Your task to perform on an android device: Play the last video I watched on Youtube Image 0: 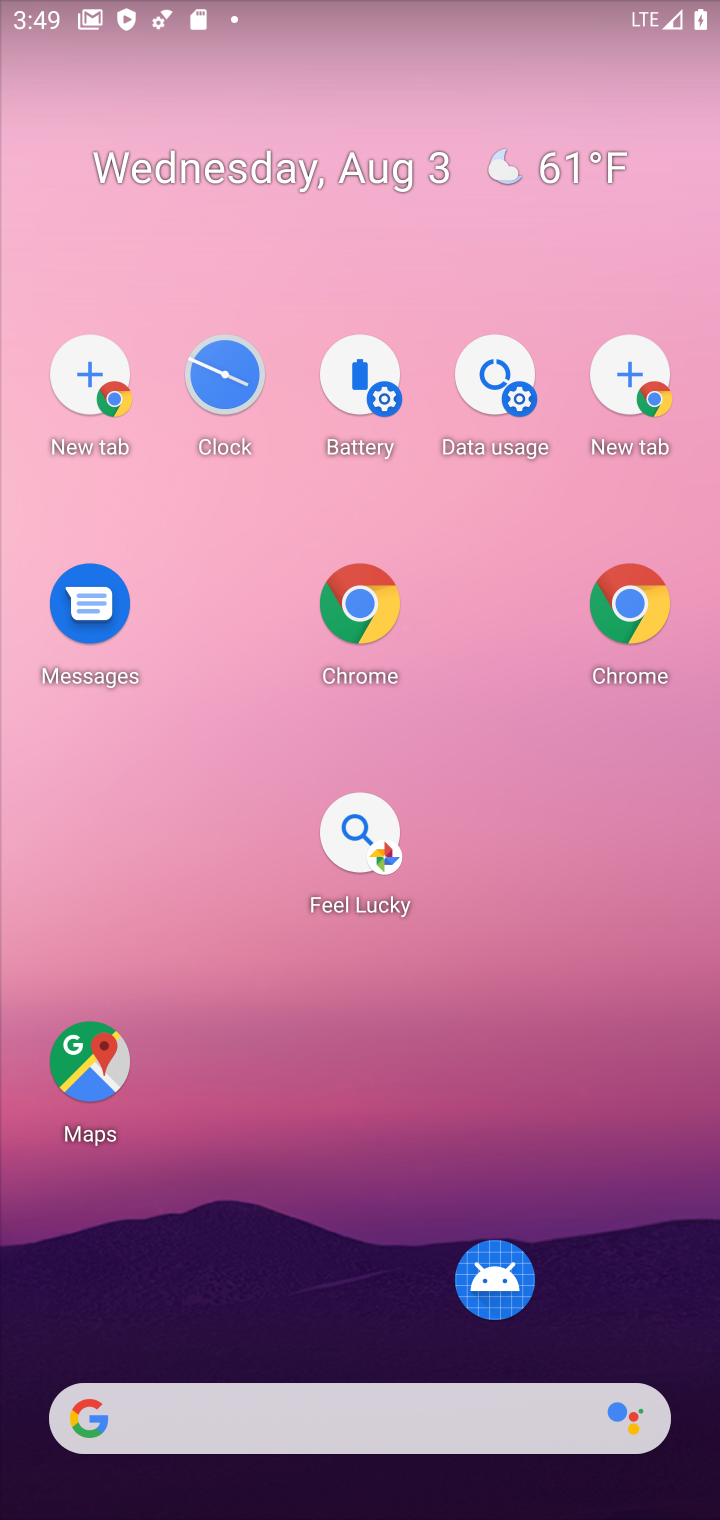
Step 0: press back button
Your task to perform on an android device: Play the last video I watched on Youtube Image 1: 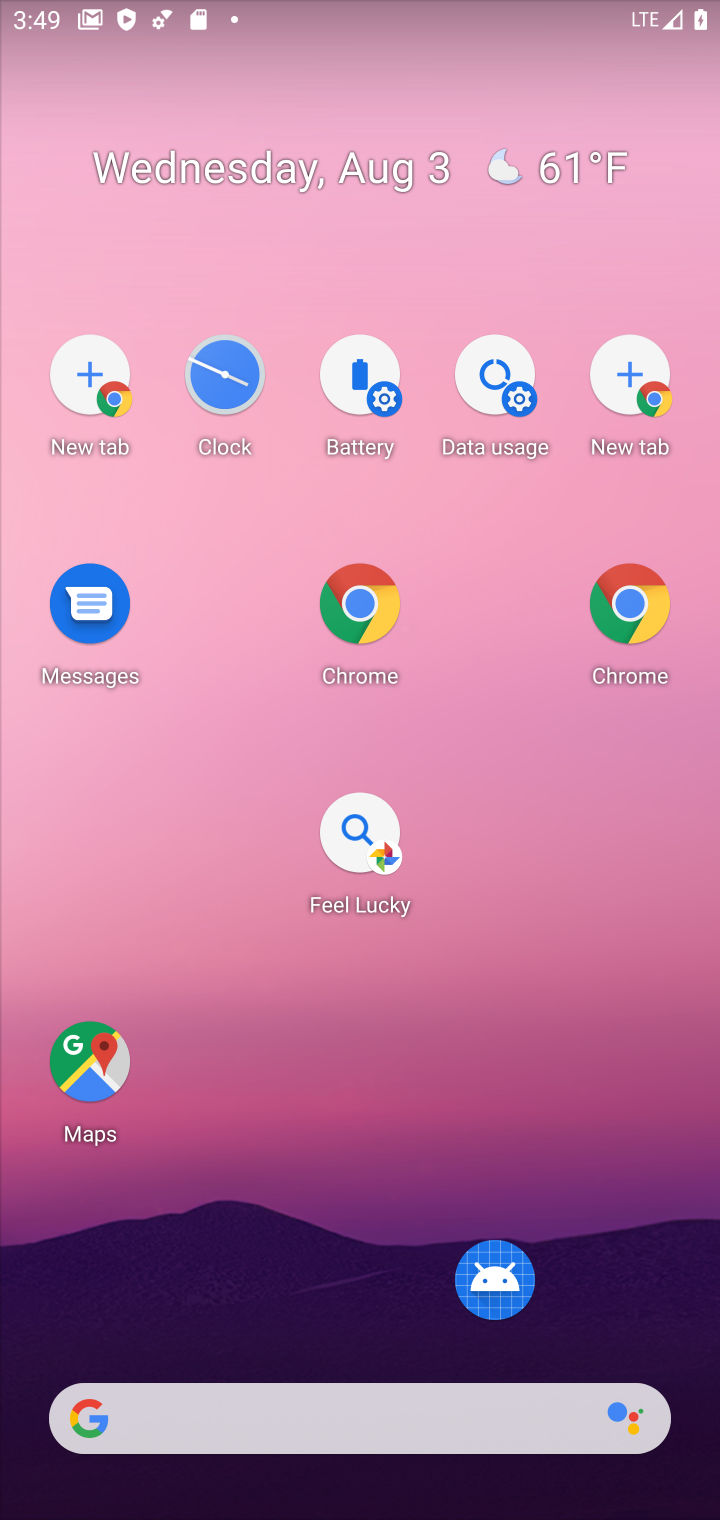
Step 1: drag from (430, 1176) to (324, 323)
Your task to perform on an android device: Play the last video I watched on Youtube Image 2: 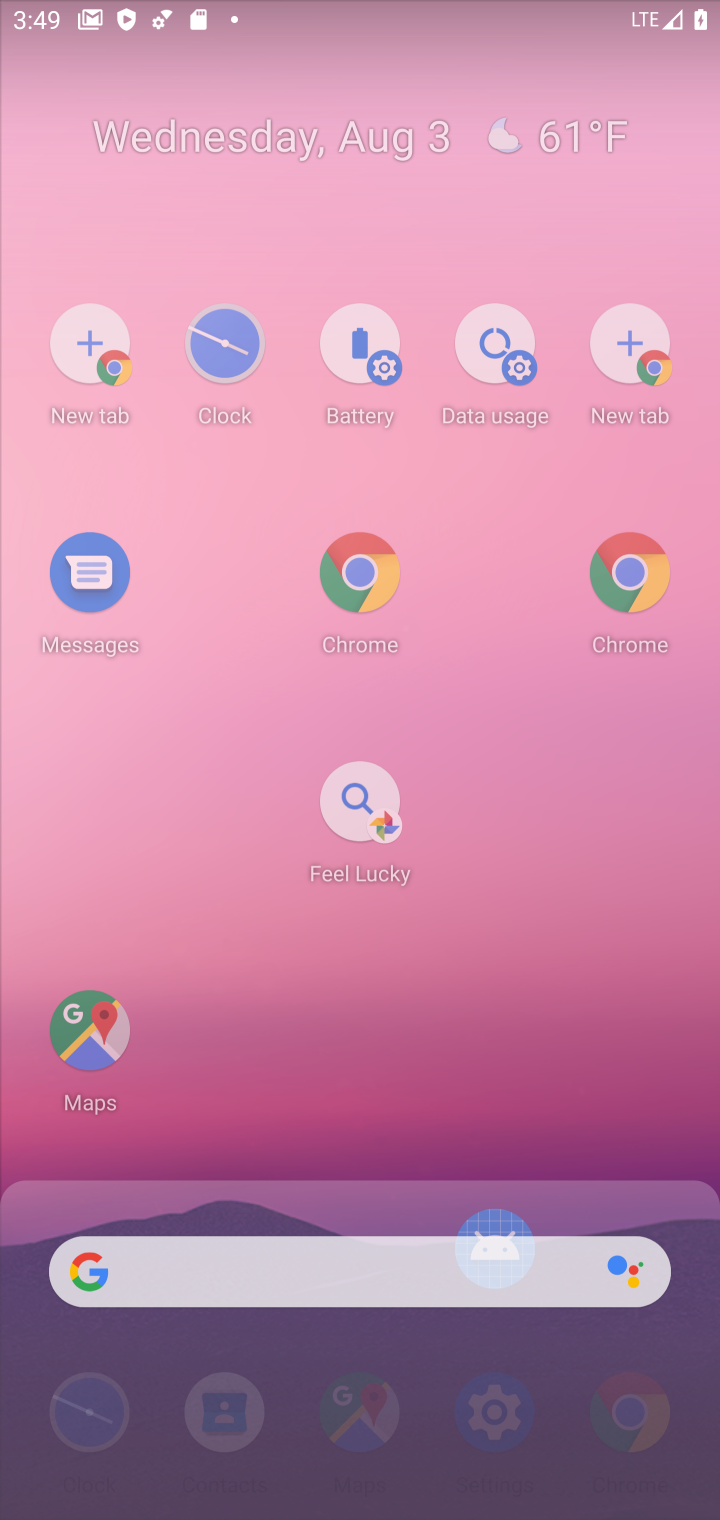
Step 2: drag from (523, 1110) to (470, 638)
Your task to perform on an android device: Play the last video I watched on Youtube Image 3: 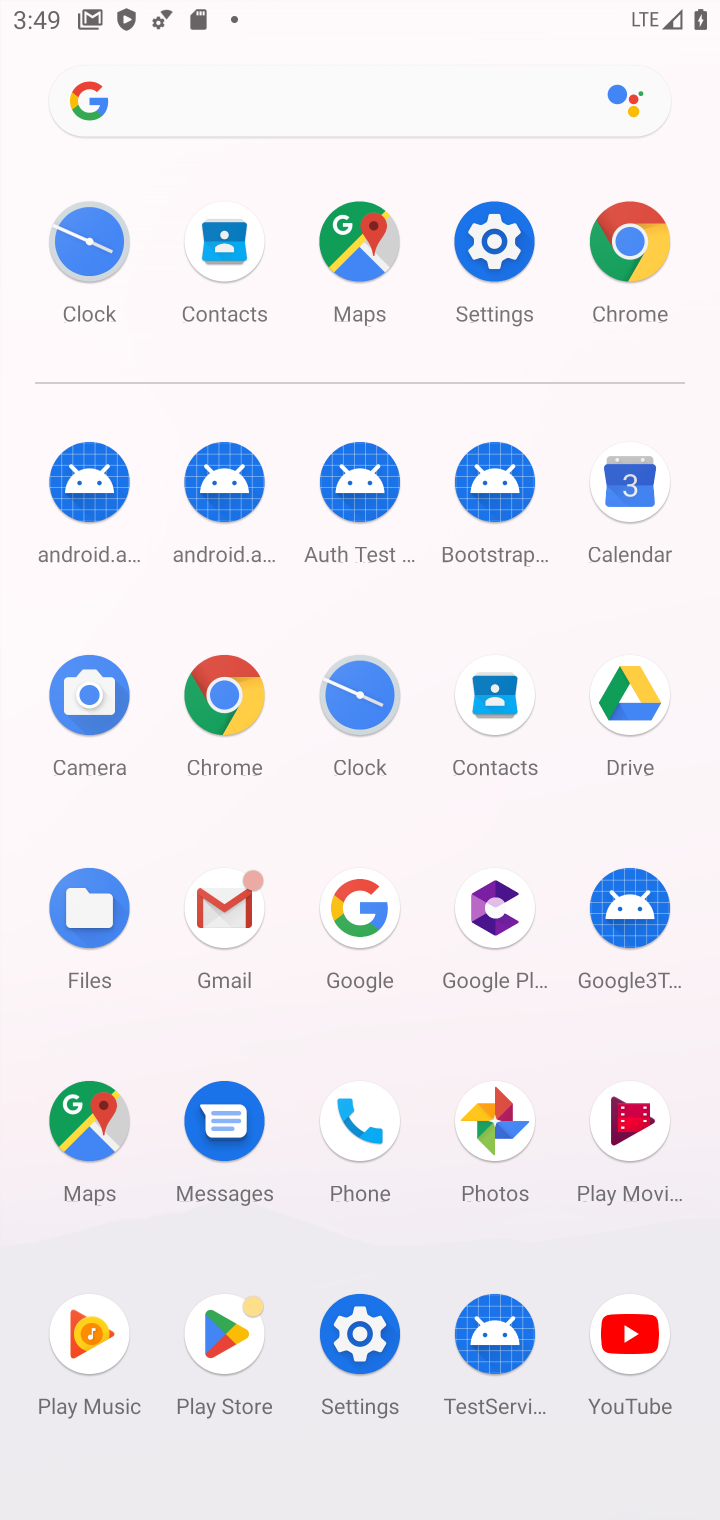
Step 3: click (639, 1325)
Your task to perform on an android device: Play the last video I watched on Youtube Image 4: 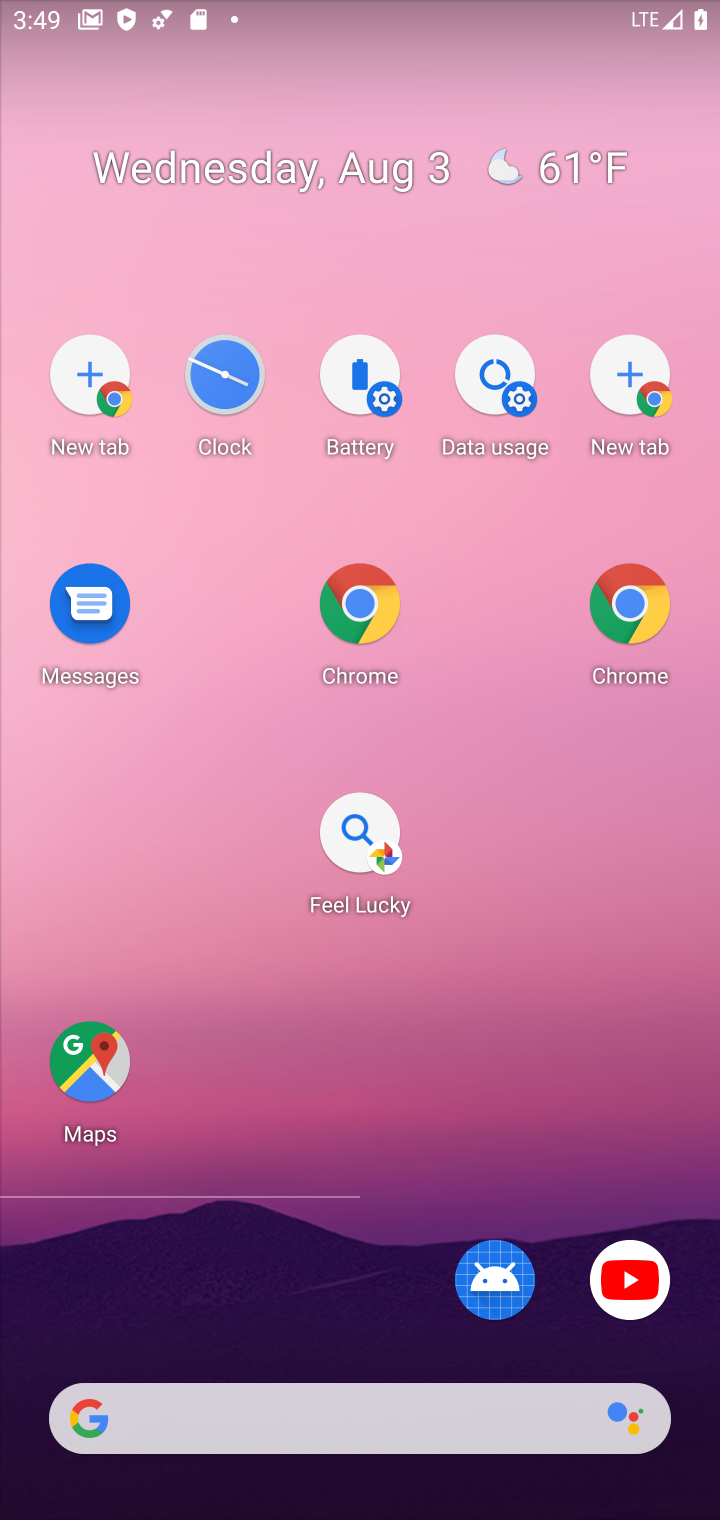
Step 4: click (625, 1265)
Your task to perform on an android device: Play the last video I watched on Youtube Image 5: 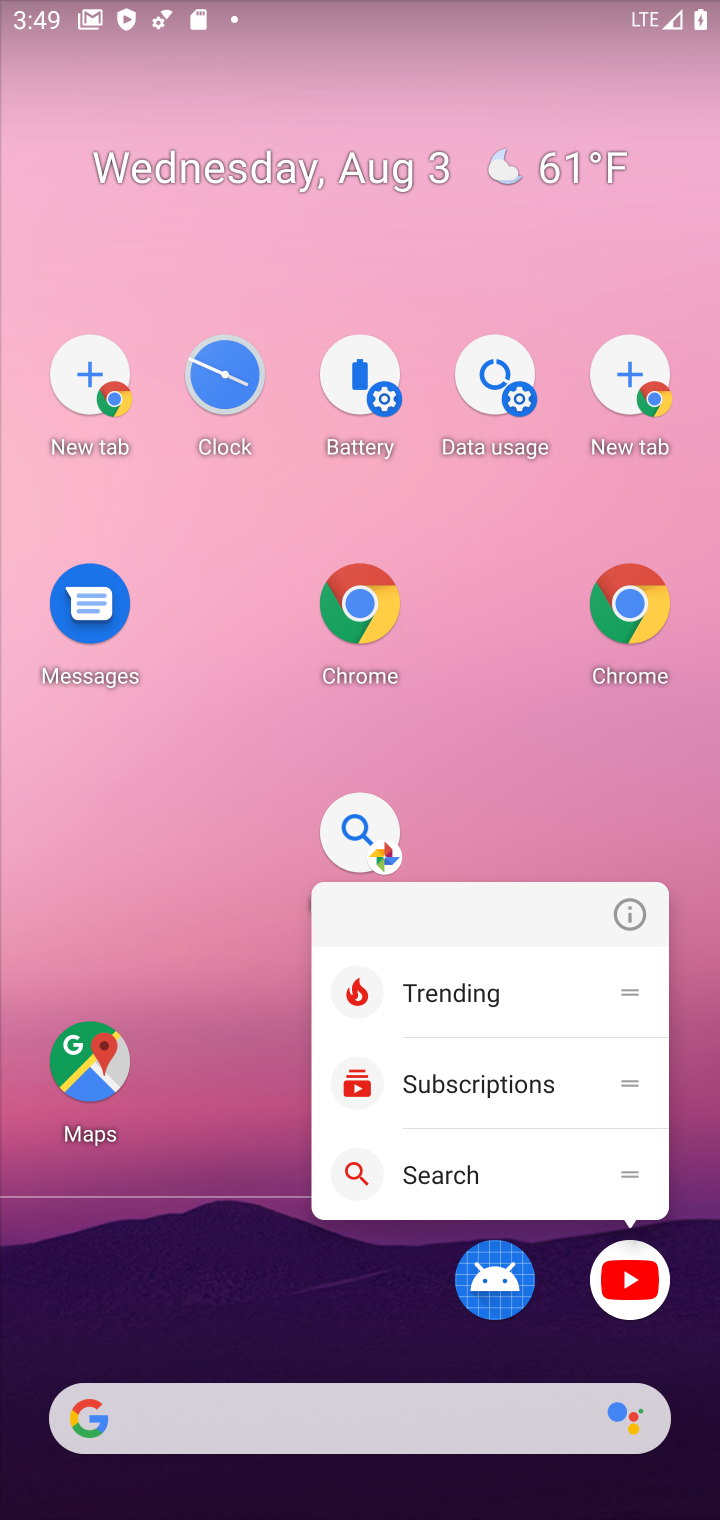
Step 5: click (623, 1263)
Your task to perform on an android device: Play the last video I watched on Youtube Image 6: 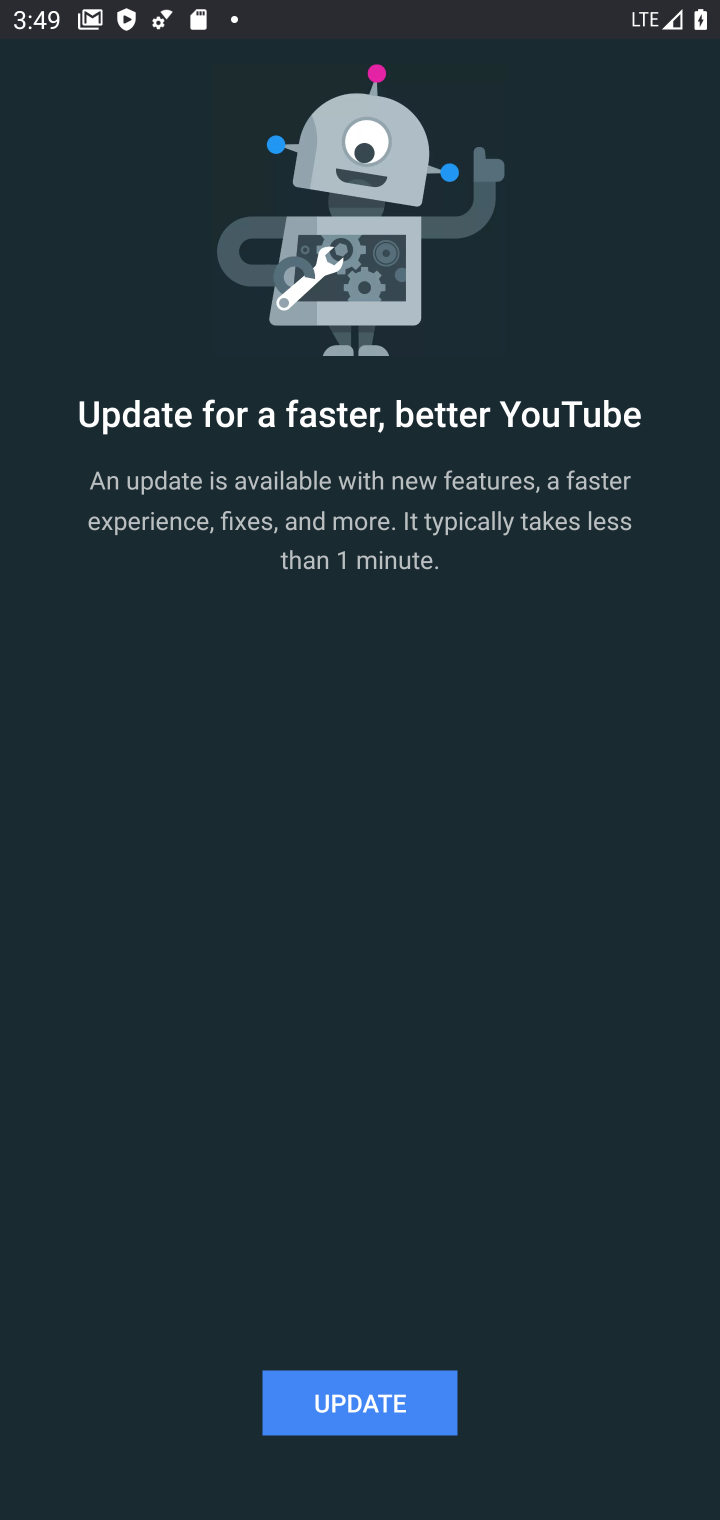
Step 6: click (376, 1402)
Your task to perform on an android device: Play the last video I watched on Youtube Image 7: 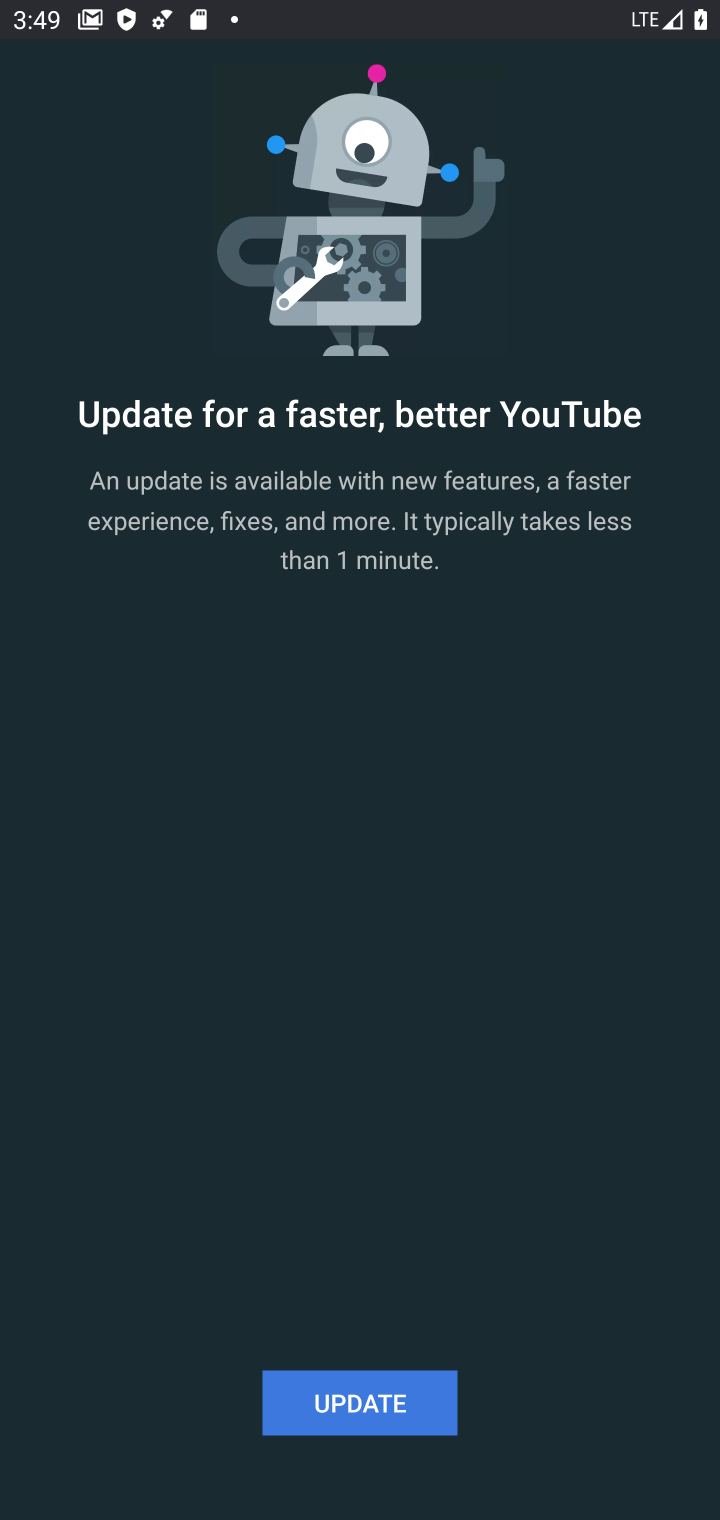
Step 7: click (376, 1402)
Your task to perform on an android device: Play the last video I watched on Youtube Image 8: 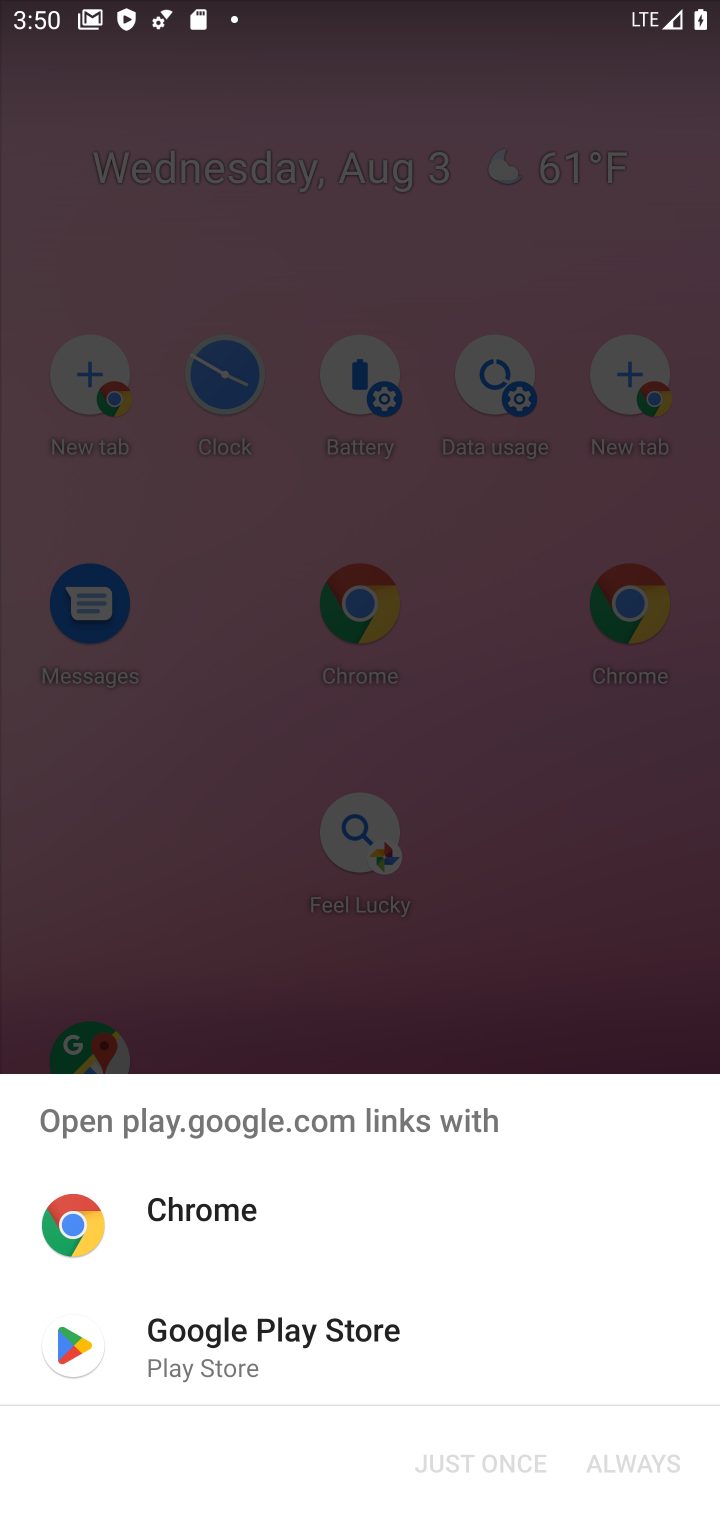
Step 8: click (157, 1202)
Your task to perform on an android device: Play the last video I watched on Youtube Image 9: 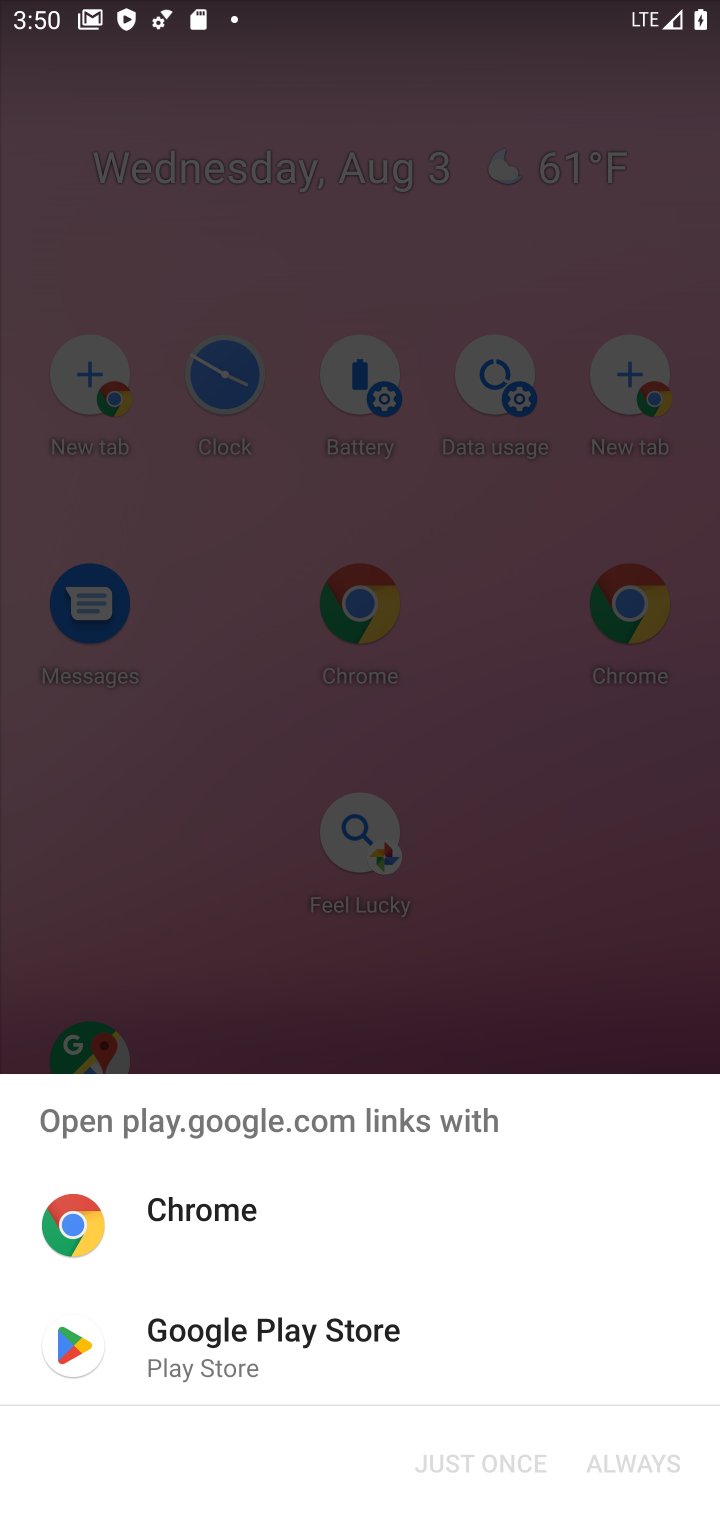
Step 9: click (157, 1202)
Your task to perform on an android device: Play the last video I watched on Youtube Image 10: 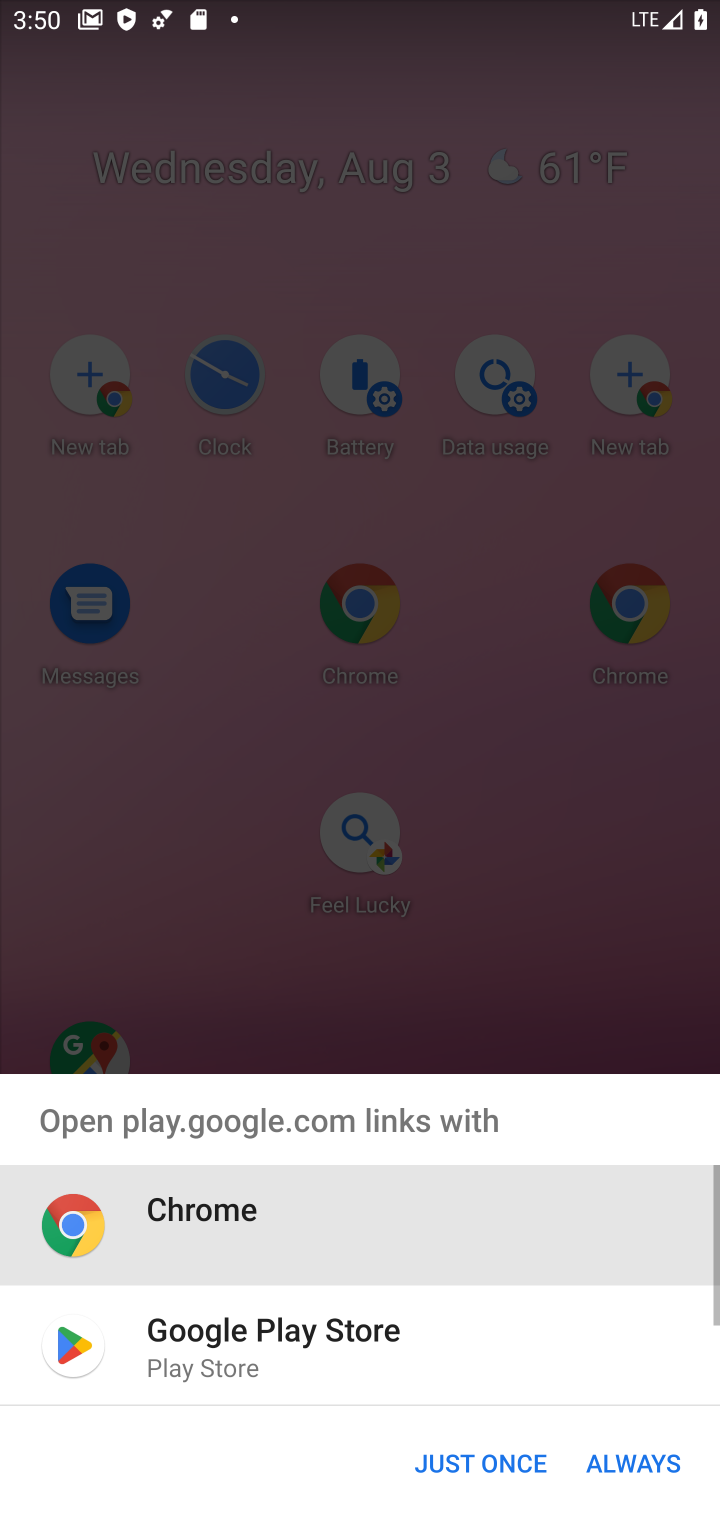
Step 10: click (157, 1199)
Your task to perform on an android device: Play the last video I watched on Youtube Image 11: 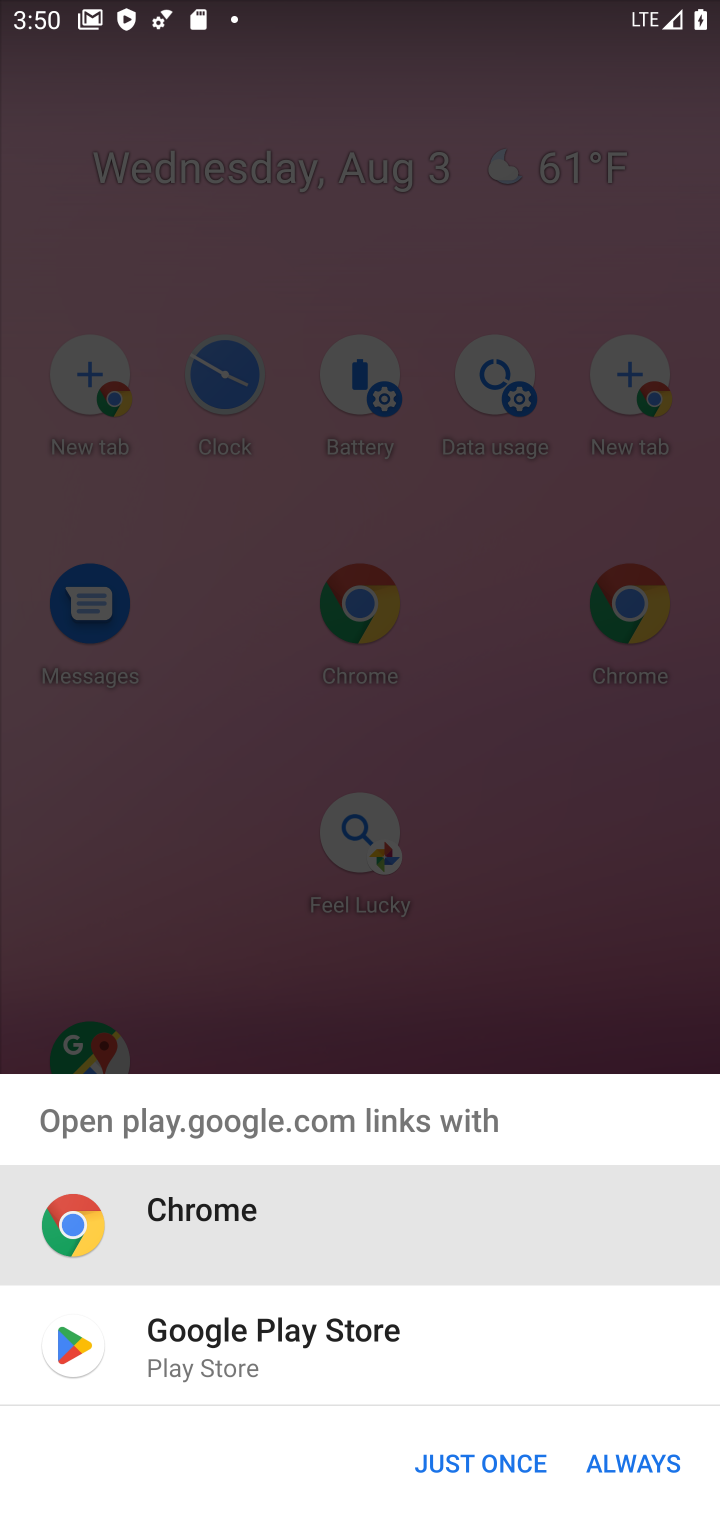
Step 11: click (207, 1221)
Your task to perform on an android device: Play the last video I watched on Youtube Image 12: 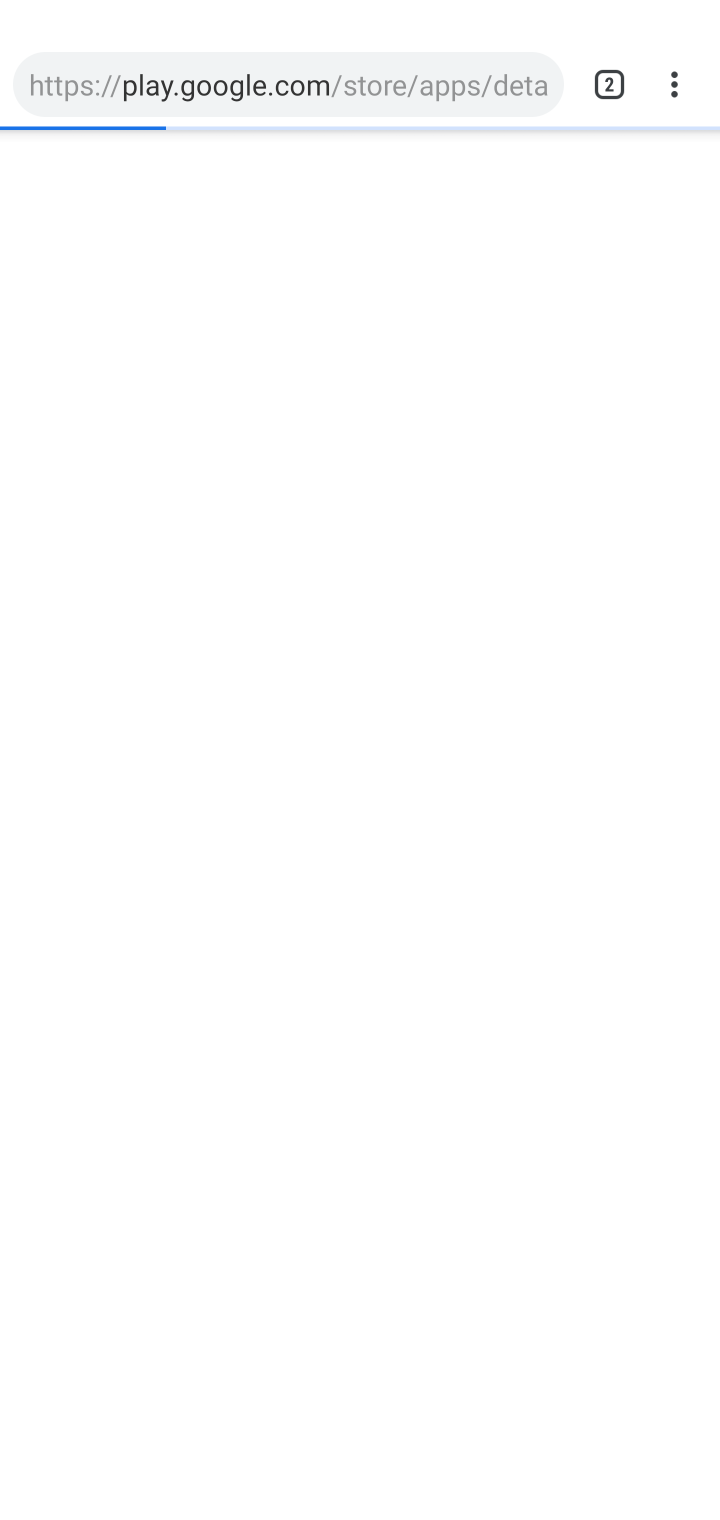
Step 12: click (222, 1229)
Your task to perform on an android device: Play the last video I watched on Youtube Image 13: 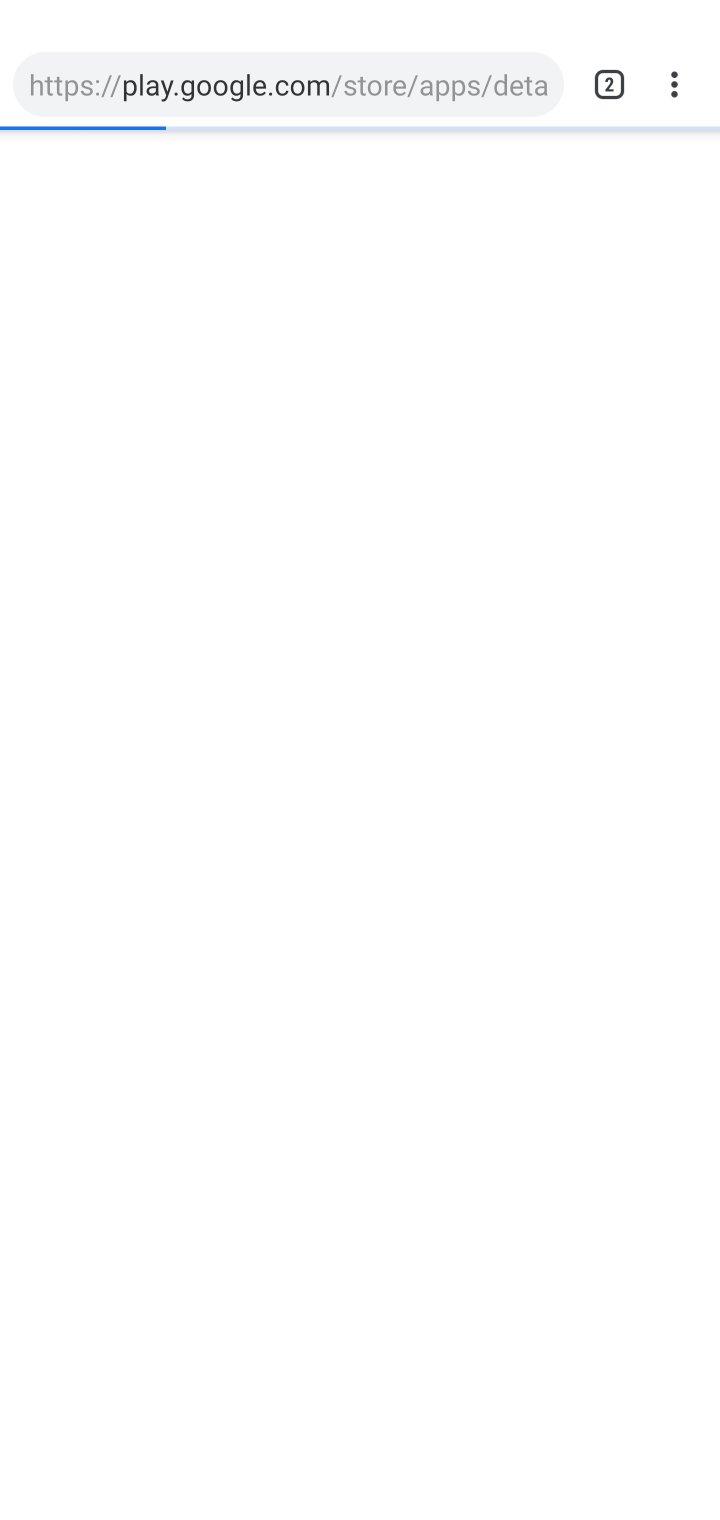
Step 13: click (261, 1242)
Your task to perform on an android device: Play the last video I watched on Youtube Image 14: 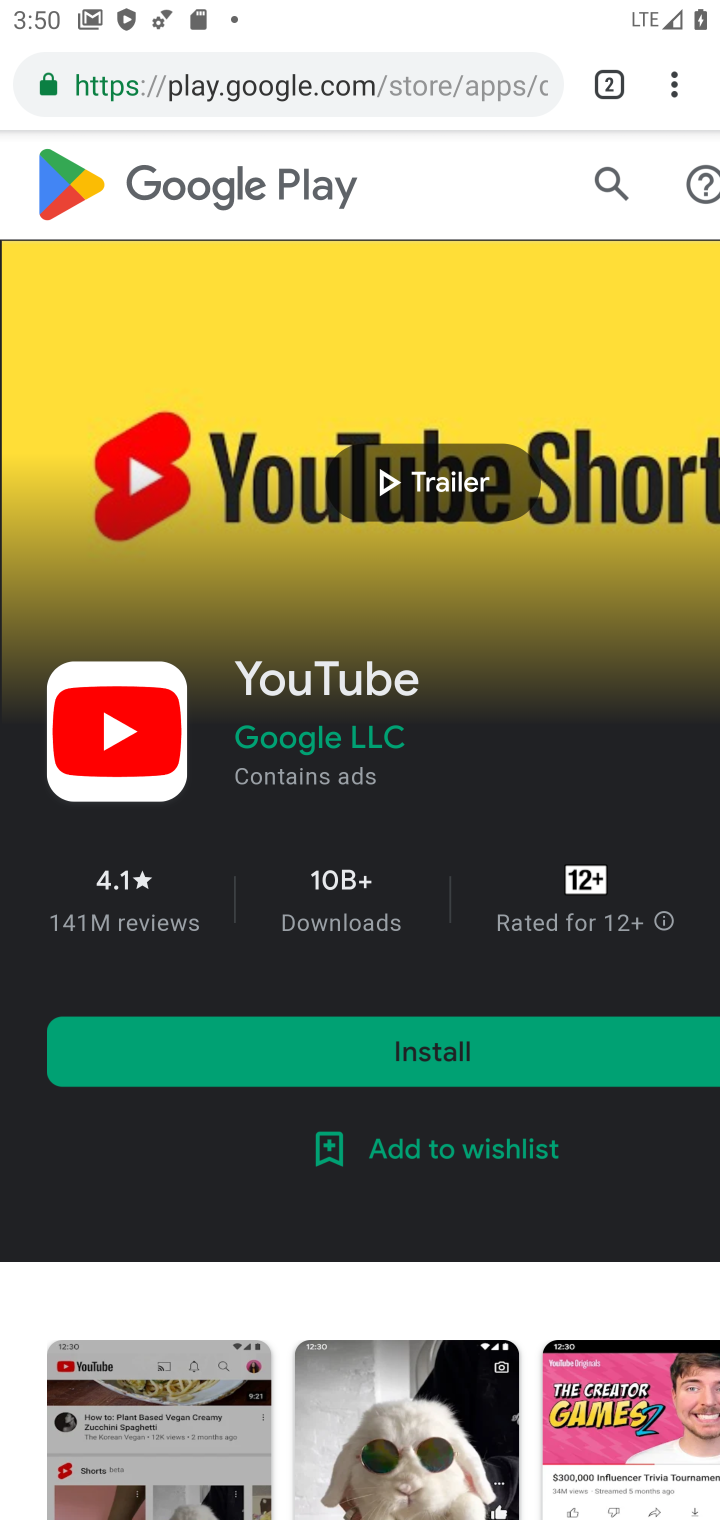
Step 14: drag from (404, 1101) to (333, 710)
Your task to perform on an android device: Play the last video I watched on Youtube Image 15: 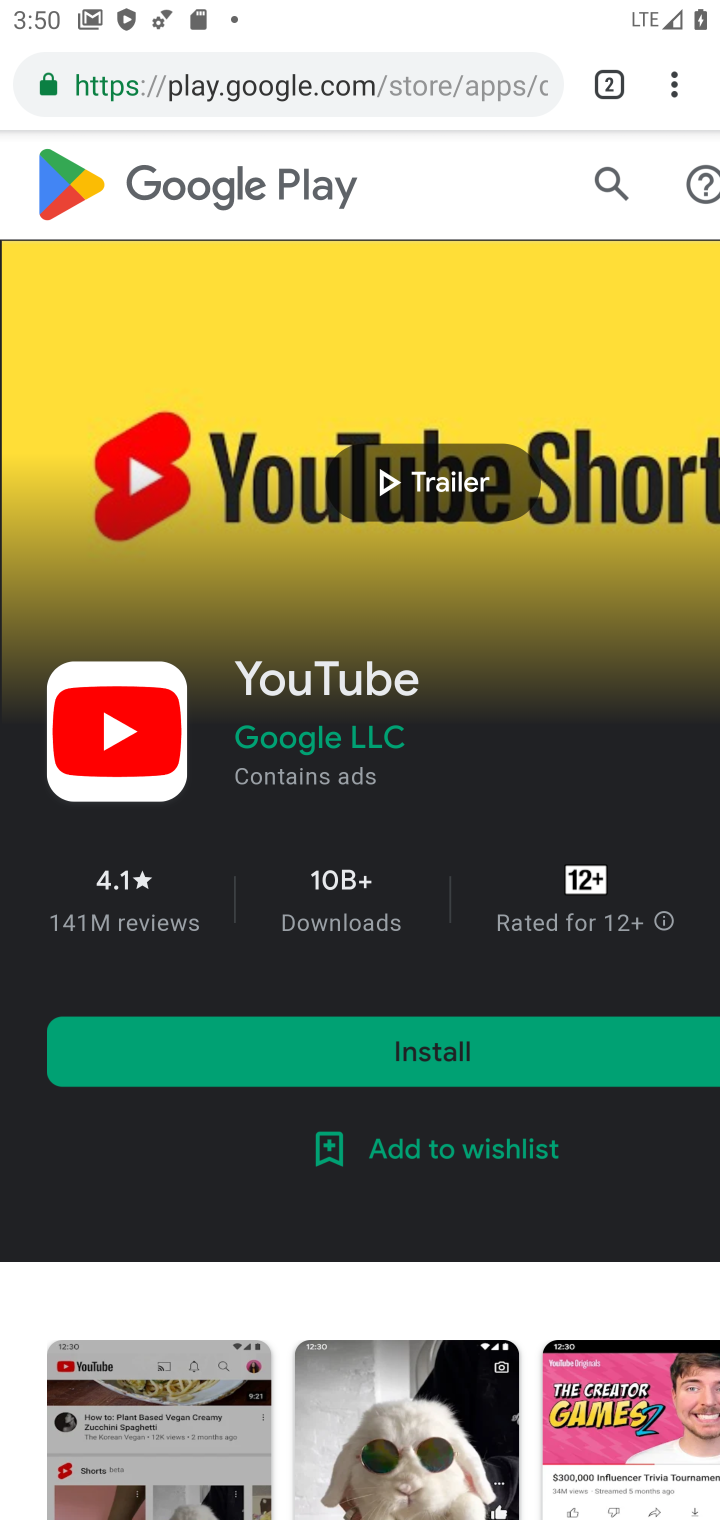
Step 15: click (423, 436)
Your task to perform on an android device: Play the last video I watched on Youtube Image 16: 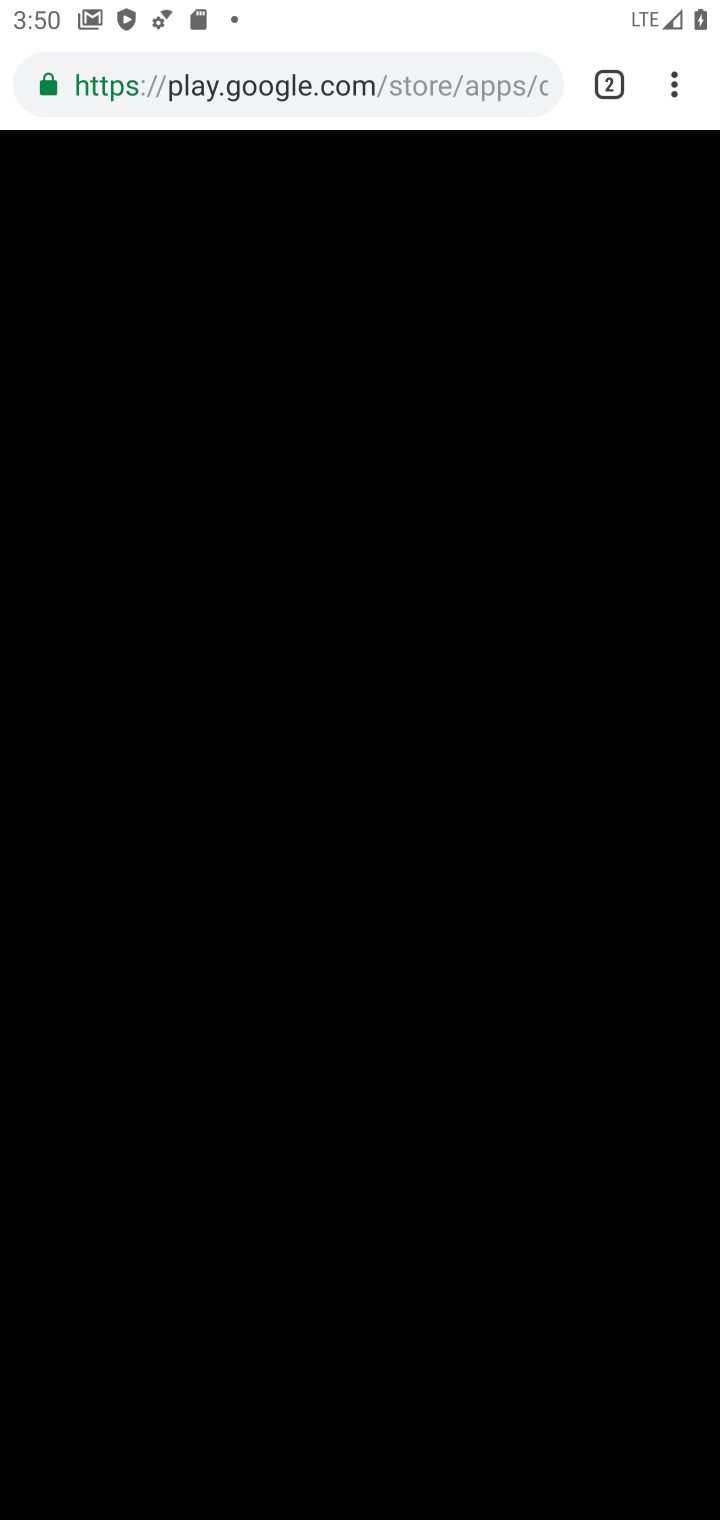
Step 16: task complete